Your task to perform on an android device: turn on sleep mode Image 0: 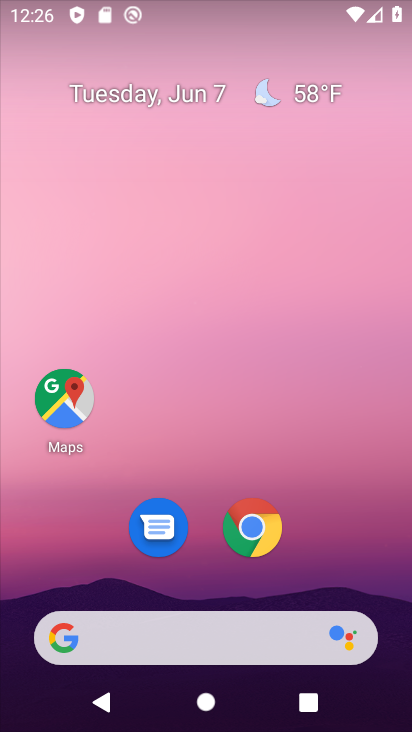
Step 0: drag from (373, 682) to (346, 3)
Your task to perform on an android device: turn on sleep mode Image 1: 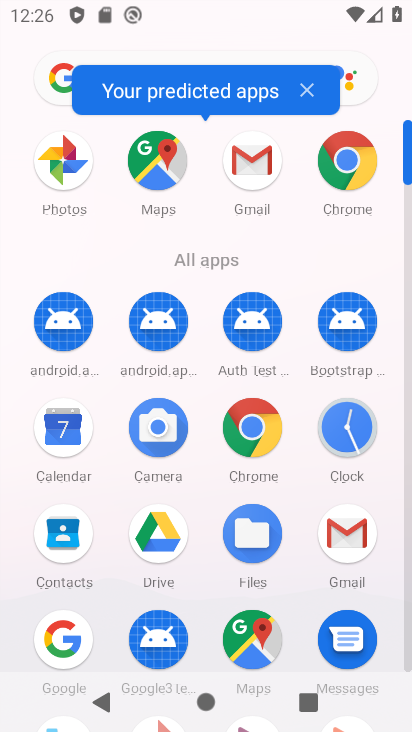
Step 1: drag from (201, 576) to (194, 147)
Your task to perform on an android device: turn on sleep mode Image 2: 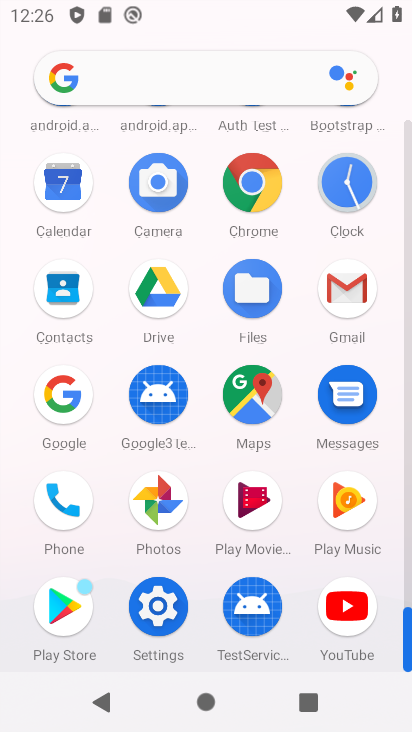
Step 2: click (152, 587)
Your task to perform on an android device: turn on sleep mode Image 3: 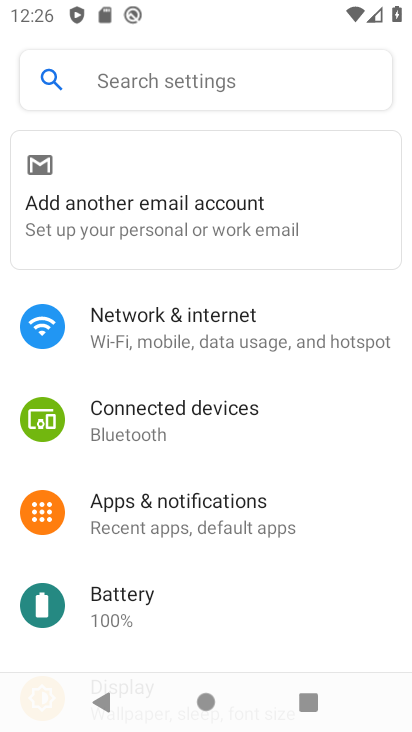
Step 3: drag from (231, 625) to (261, 169)
Your task to perform on an android device: turn on sleep mode Image 4: 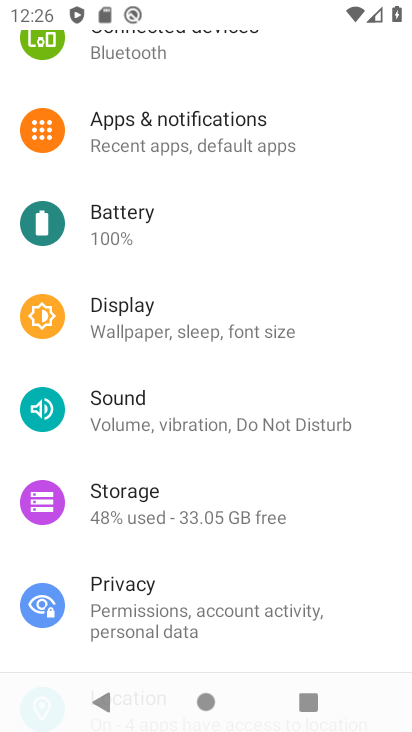
Step 4: click (165, 332)
Your task to perform on an android device: turn on sleep mode Image 5: 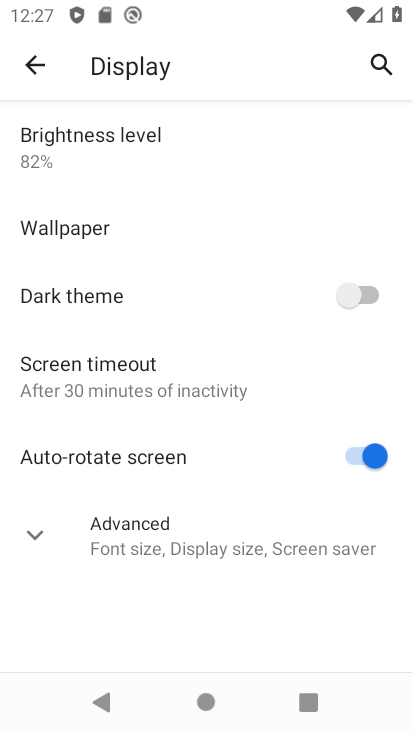
Step 5: click (74, 386)
Your task to perform on an android device: turn on sleep mode Image 6: 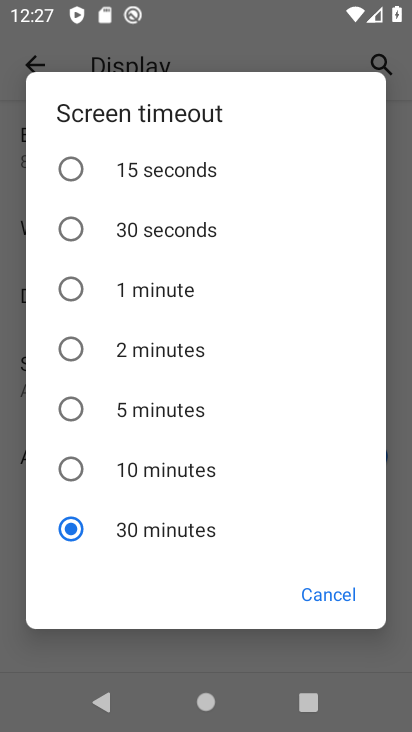
Step 6: task complete